Your task to perform on an android device: Search for seafood restaurants on Google Maps Image 0: 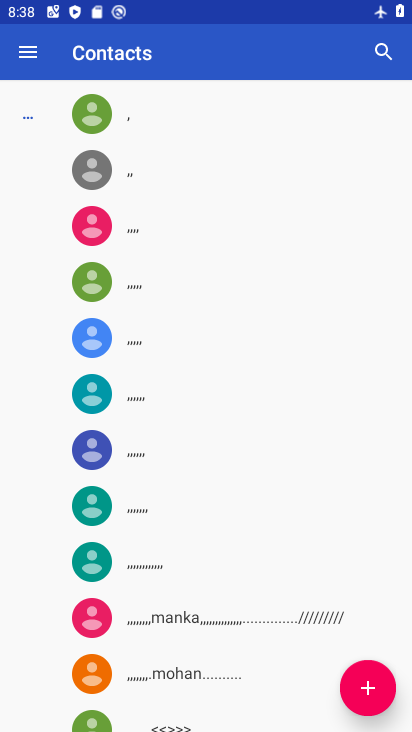
Step 0: press home button
Your task to perform on an android device: Search for seafood restaurants on Google Maps Image 1: 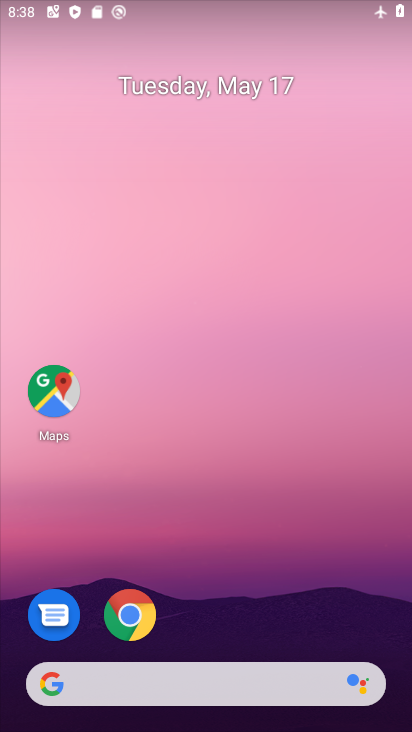
Step 1: drag from (252, 622) to (242, 518)
Your task to perform on an android device: Search for seafood restaurants on Google Maps Image 2: 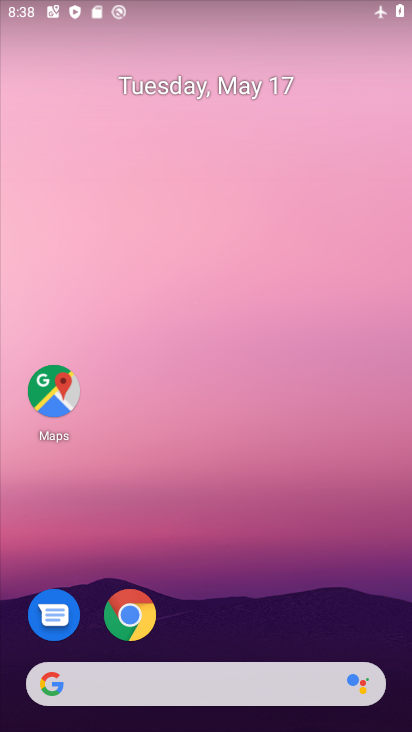
Step 2: click (40, 393)
Your task to perform on an android device: Search for seafood restaurants on Google Maps Image 3: 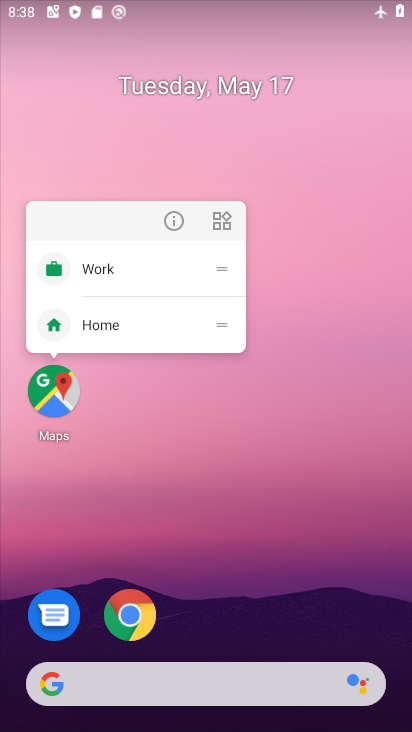
Step 3: click (41, 392)
Your task to perform on an android device: Search for seafood restaurants on Google Maps Image 4: 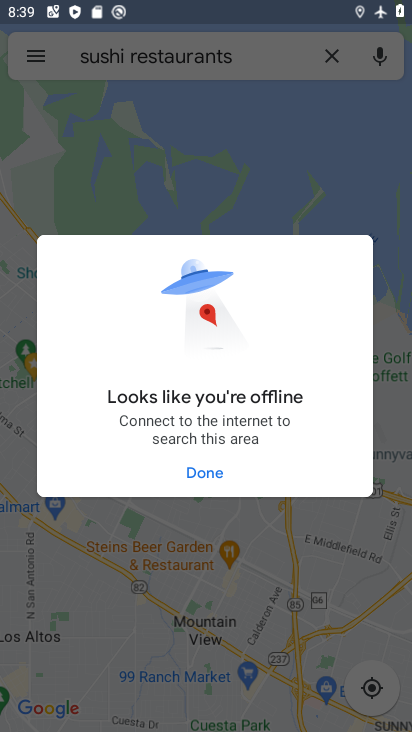
Step 4: click (213, 477)
Your task to perform on an android device: Search for seafood restaurants on Google Maps Image 5: 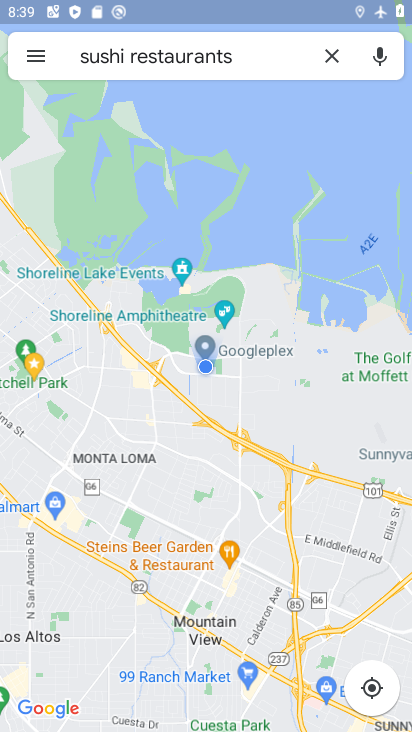
Step 5: click (323, 54)
Your task to perform on an android device: Search for seafood restaurants on Google Maps Image 6: 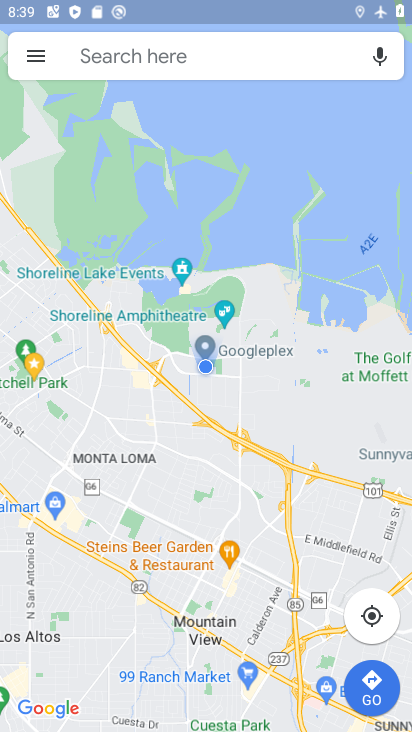
Step 6: click (253, 53)
Your task to perform on an android device: Search for seafood restaurants on Google Maps Image 7: 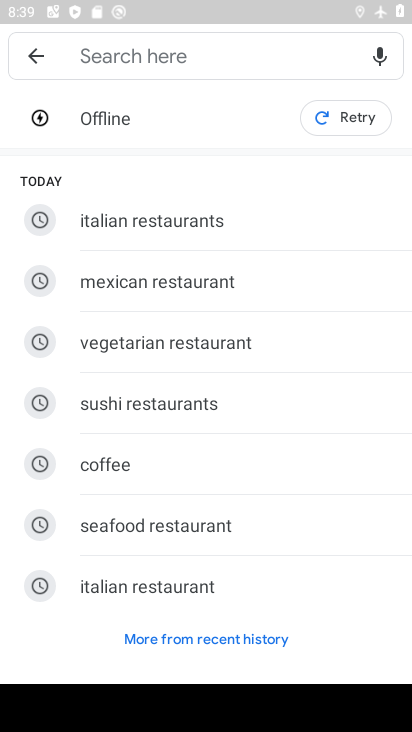
Step 7: click (163, 529)
Your task to perform on an android device: Search for seafood restaurants on Google Maps Image 8: 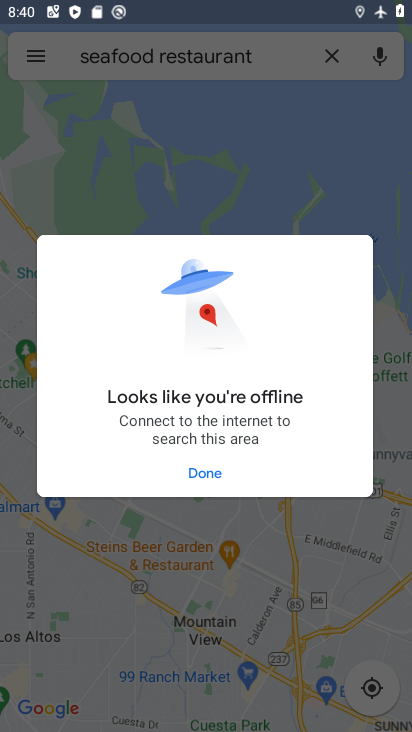
Step 8: task complete